Your task to perform on an android device: check the backup settings in the google photos Image 0: 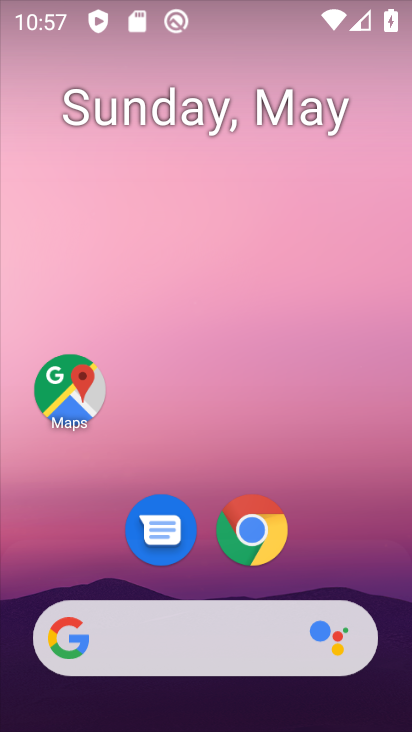
Step 0: drag from (199, 509) to (266, 8)
Your task to perform on an android device: check the backup settings in the google photos Image 1: 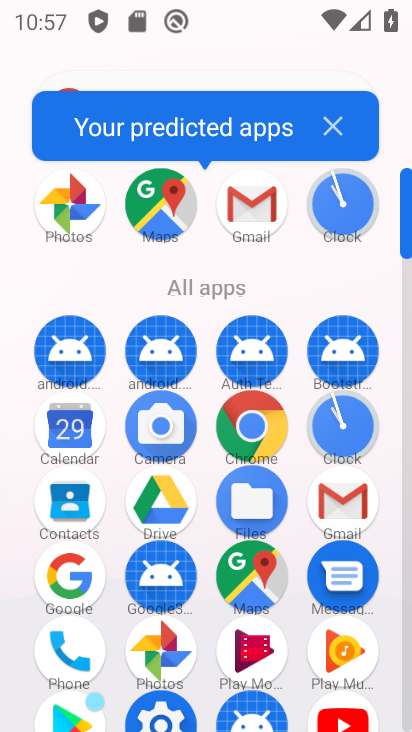
Step 1: click (161, 645)
Your task to perform on an android device: check the backup settings in the google photos Image 2: 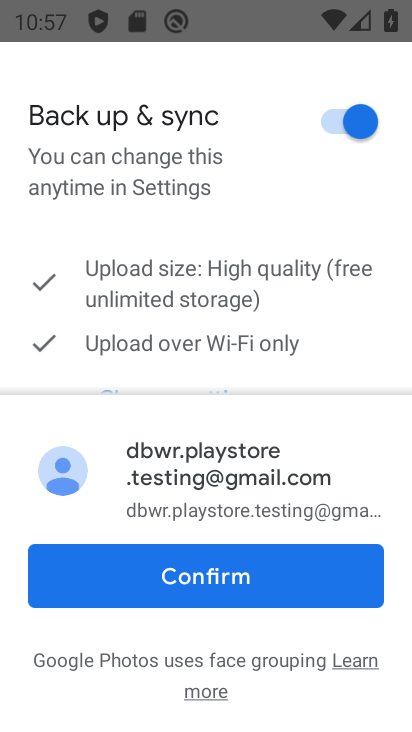
Step 2: click (207, 577)
Your task to perform on an android device: check the backup settings in the google photos Image 3: 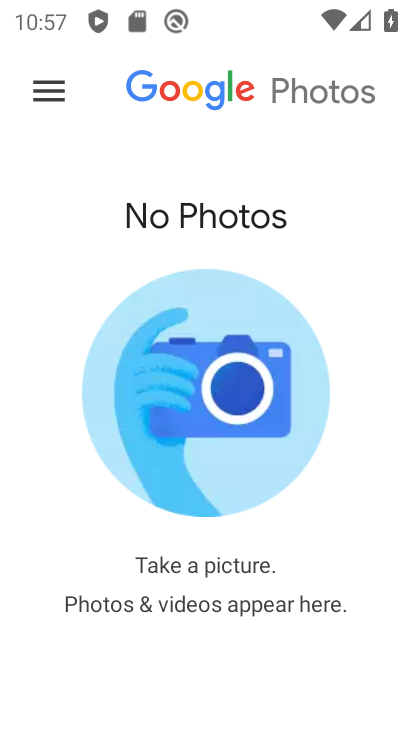
Step 3: click (43, 90)
Your task to perform on an android device: check the backup settings in the google photos Image 4: 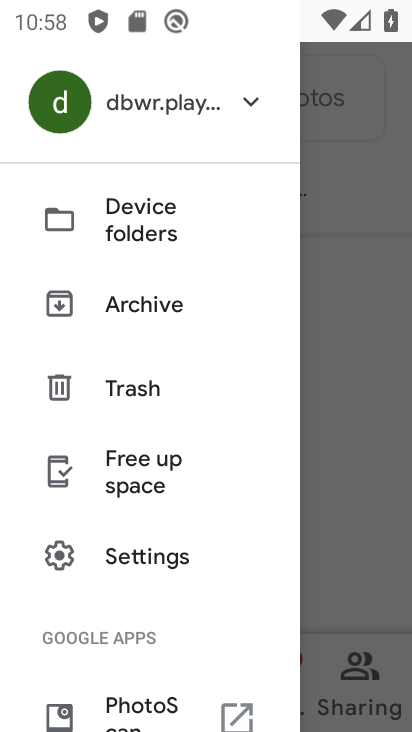
Step 4: click (137, 551)
Your task to perform on an android device: check the backup settings in the google photos Image 5: 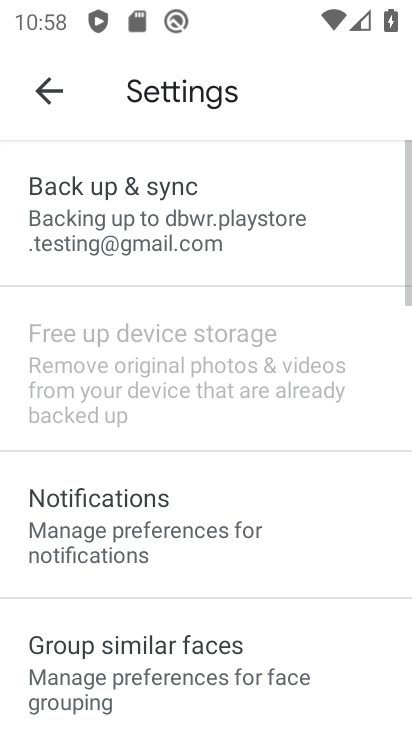
Step 5: click (122, 233)
Your task to perform on an android device: check the backup settings in the google photos Image 6: 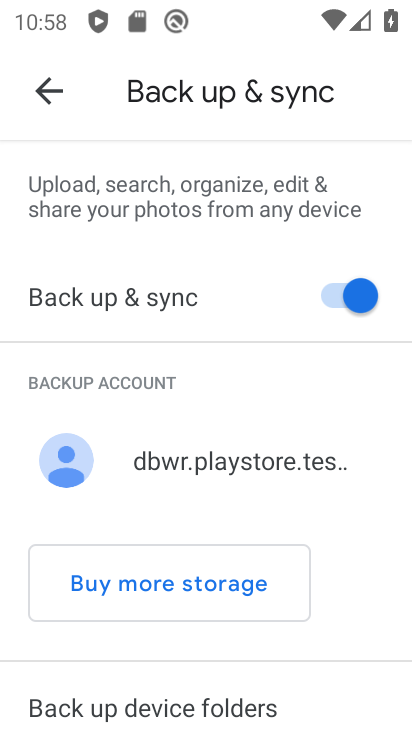
Step 6: task complete